Your task to perform on an android device: What's the news in French Guiana? Image 0: 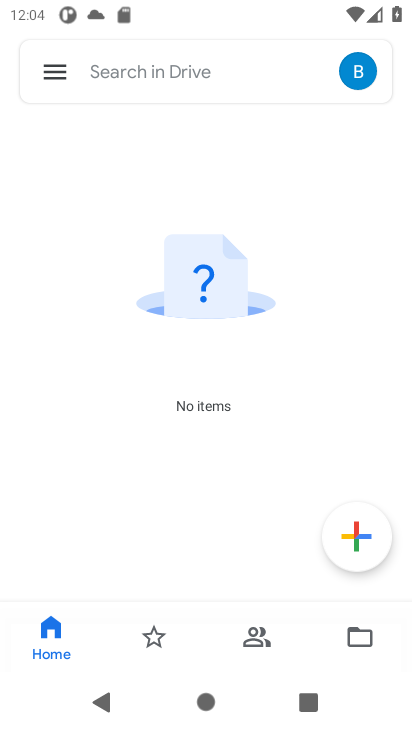
Step 0: press home button
Your task to perform on an android device: What's the news in French Guiana? Image 1: 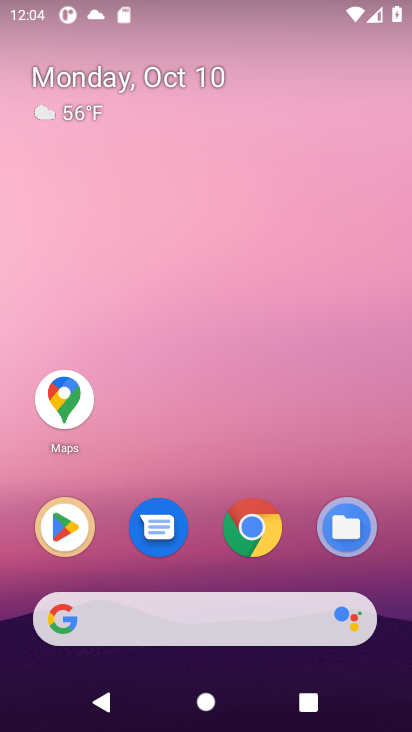
Step 1: click (253, 529)
Your task to perform on an android device: What's the news in French Guiana? Image 2: 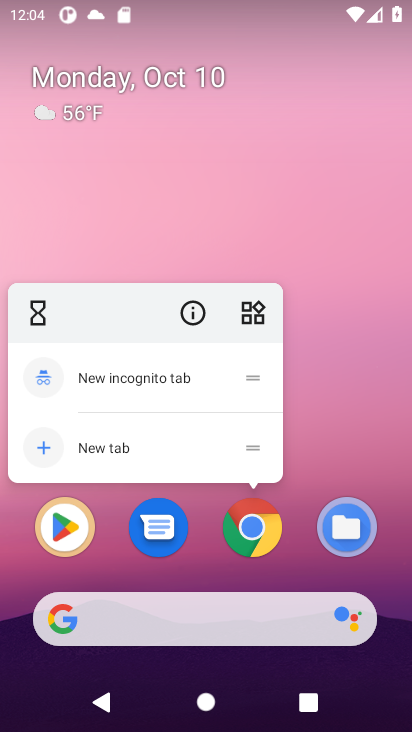
Step 2: click (253, 529)
Your task to perform on an android device: What's the news in French Guiana? Image 3: 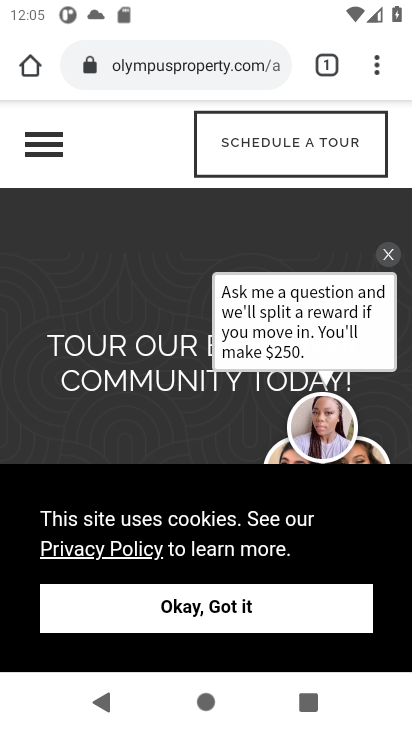
Step 3: click (203, 55)
Your task to perform on an android device: What's the news in French Guiana? Image 4: 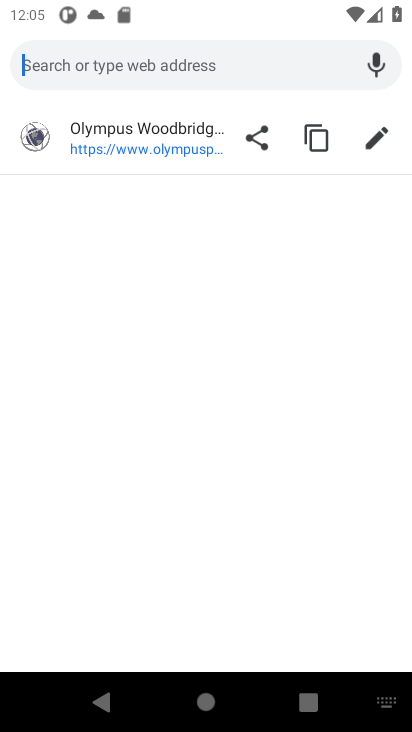
Step 4: type "What's the news in French Guiana?"
Your task to perform on an android device: What's the news in French Guiana? Image 5: 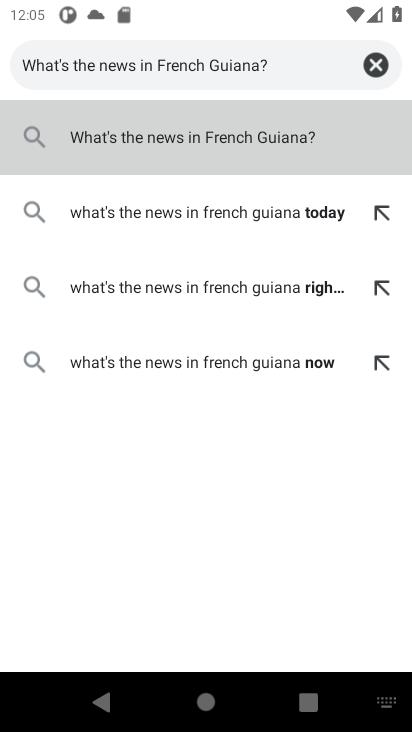
Step 5: click (220, 141)
Your task to perform on an android device: What's the news in French Guiana? Image 6: 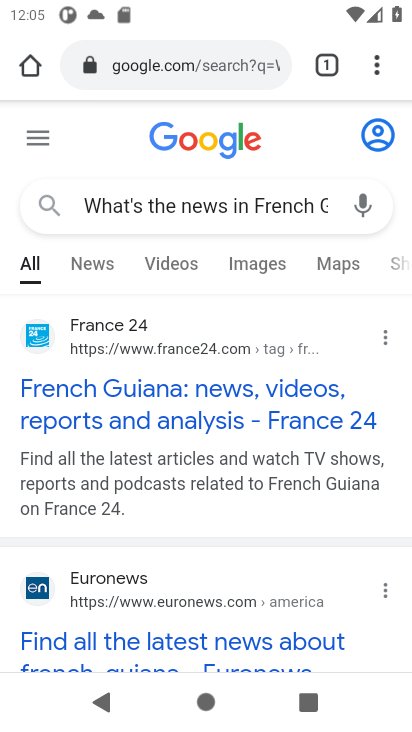
Step 6: click (135, 408)
Your task to perform on an android device: What's the news in French Guiana? Image 7: 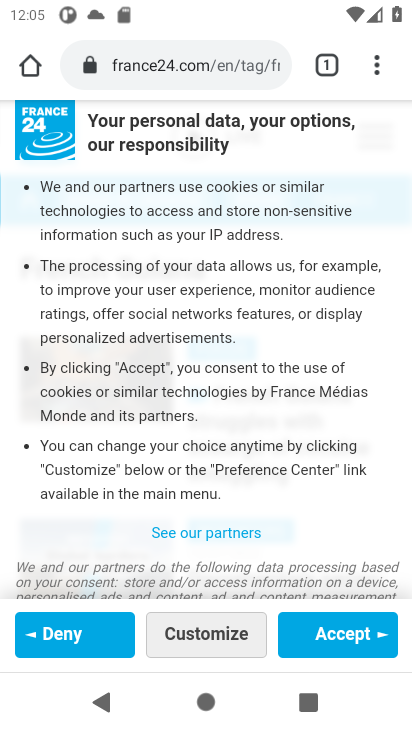
Step 7: drag from (216, 474) to (220, 317)
Your task to perform on an android device: What's the news in French Guiana? Image 8: 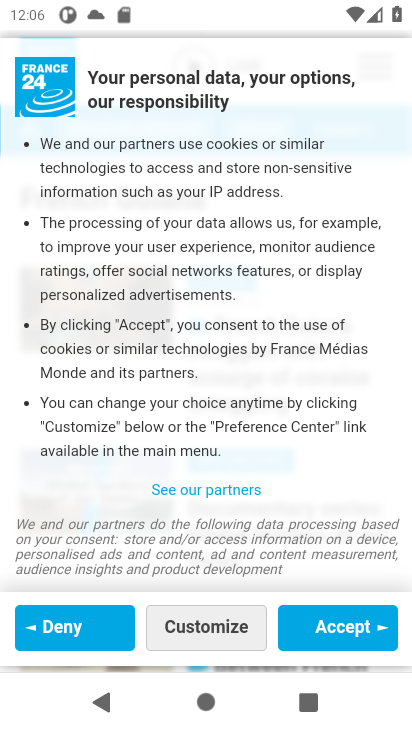
Step 8: click (63, 627)
Your task to perform on an android device: What's the news in French Guiana? Image 9: 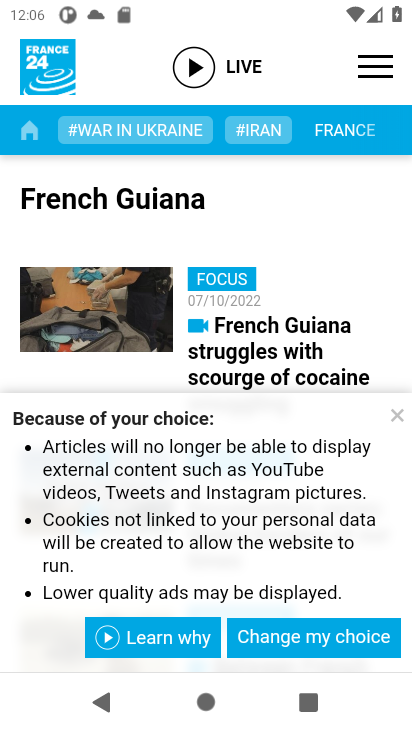
Step 9: click (397, 419)
Your task to perform on an android device: What's the news in French Guiana? Image 10: 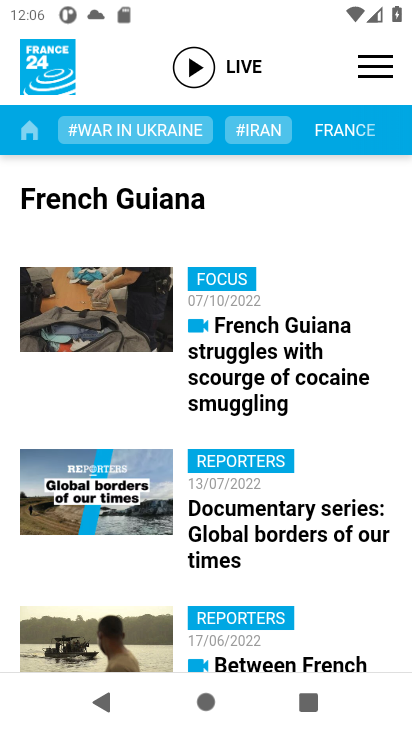
Step 10: drag from (311, 447) to (337, 284)
Your task to perform on an android device: What's the news in French Guiana? Image 11: 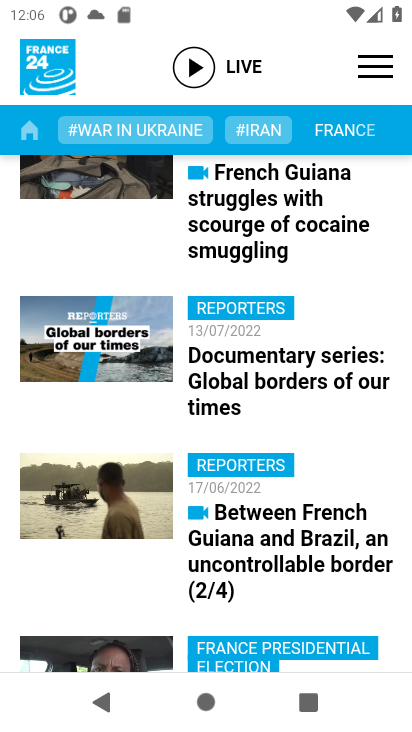
Step 11: drag from (337, 283) to (338, 534)
Your task to perform on an android device: What's the news in French Guiana? Image 12: 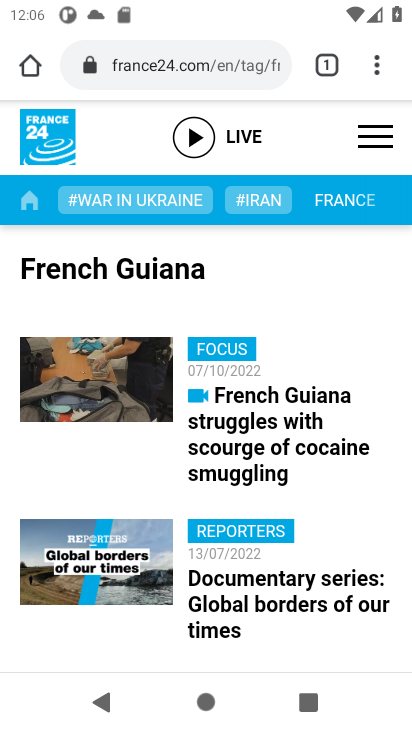
Step 12: click (79, 415)
Your task to perform on an android device: What's the news in French Guiana? Image 13: 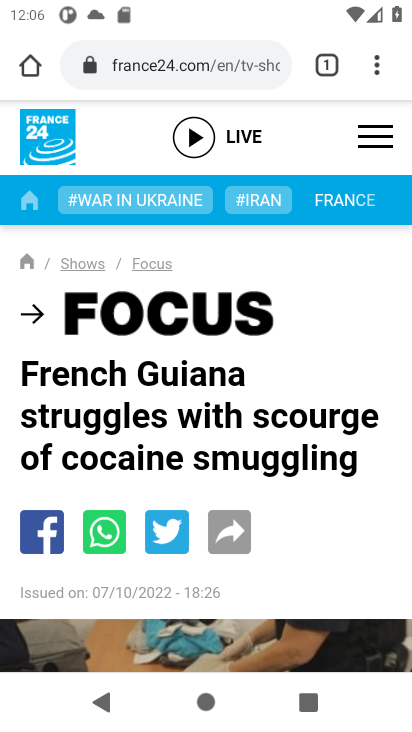
Step 13: task complete